Your task to perform on an android device: turn on wifi Image 0: 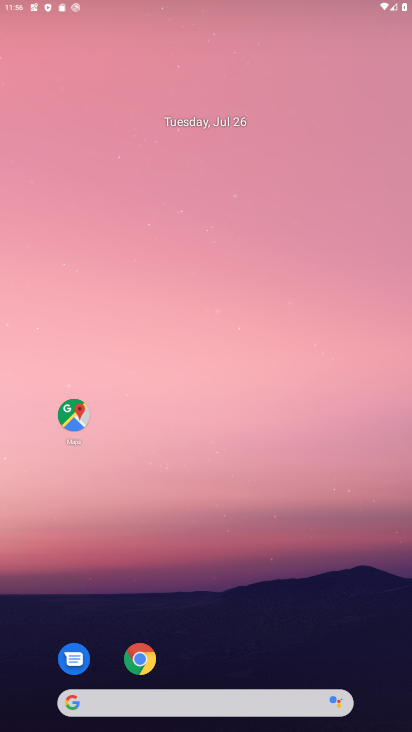
Step 0: click (410, 346)
Your task to perform on an android device: turn on wifi Image 1: 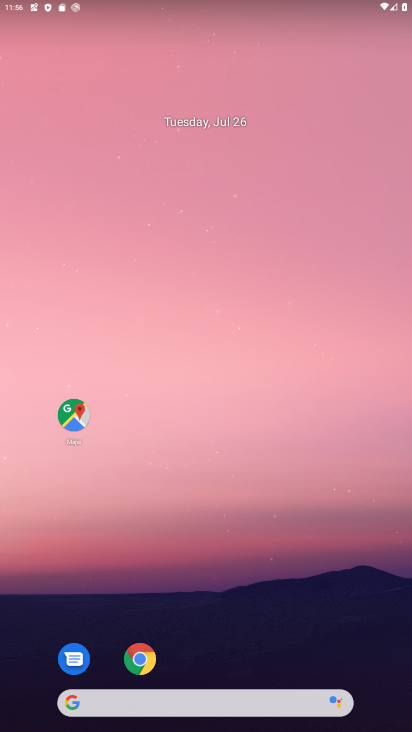
Step 1: drag from (211, 4) to (189, 471)
Your task to perform on an android device: turn on wifi Image 2: 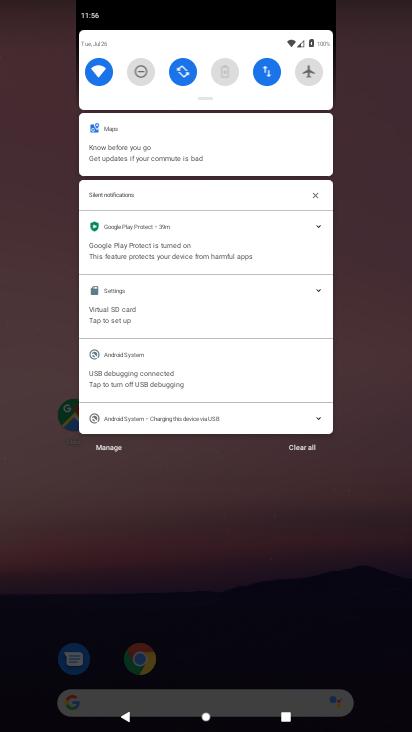
Step 2: click (100, 74)
Your task to perform on an android device: turn on wifi Image 3: 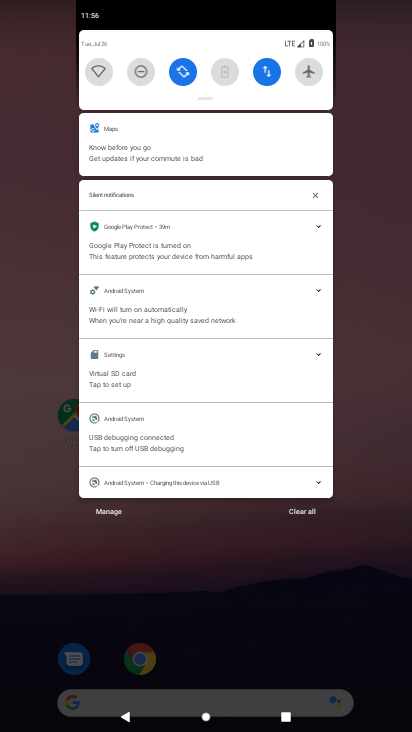
Step 3: click (100, 74)
Your task to perform on an android device: turn on wifi Image 4: 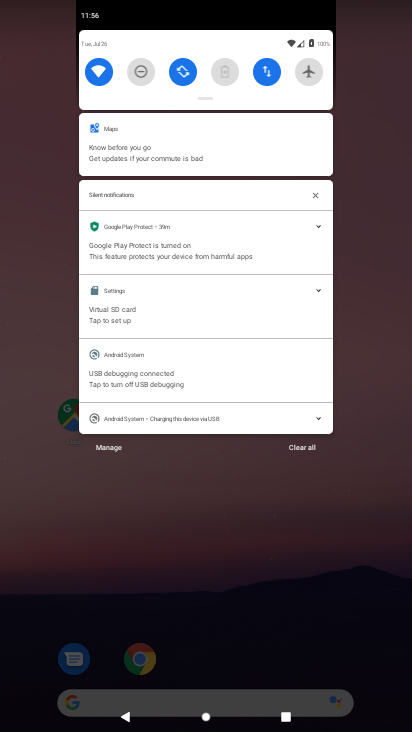
Step 4: task complete